Your task to perform on an android device: Search for seafood restaurants on Google Maps Image 0: 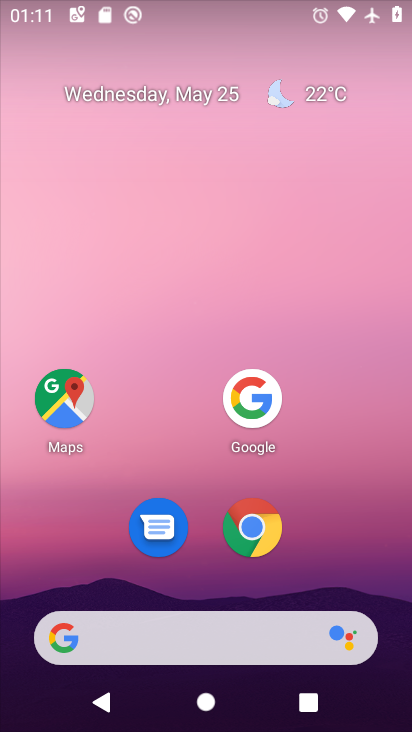
Step 0: press home button
Your task to perform on an android device: Search for seafood restaurants on Google Maps Image 1: 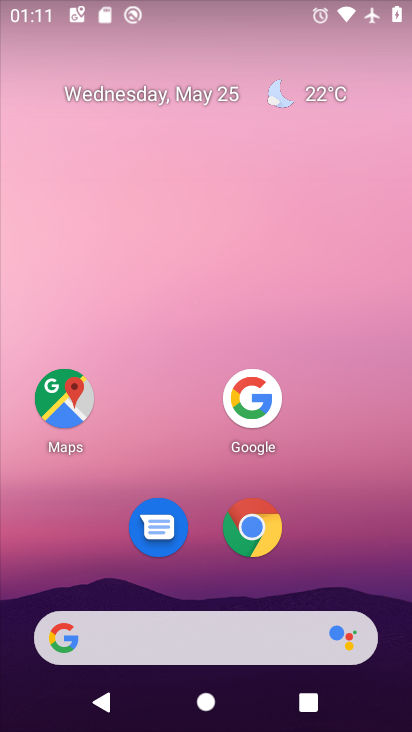
Step 1: click (63, 407)
Your task to perform on an android device: Search for seafood restaurants on Google Maps Image 2: 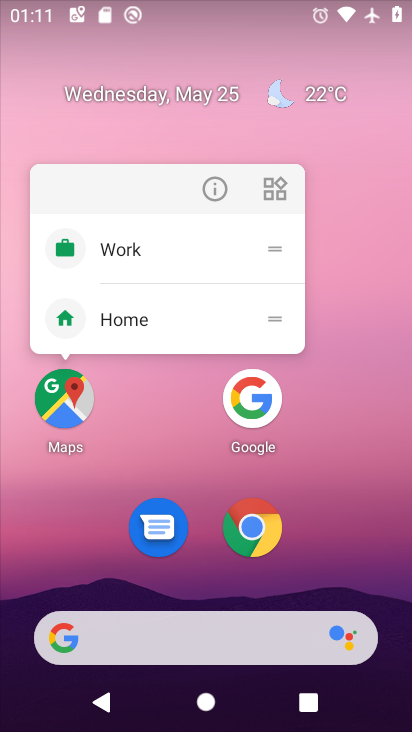
Step 2: click (63, 408)
Your task to perform on an android device: Search for seafood restaurants on Google Maps Image 3: 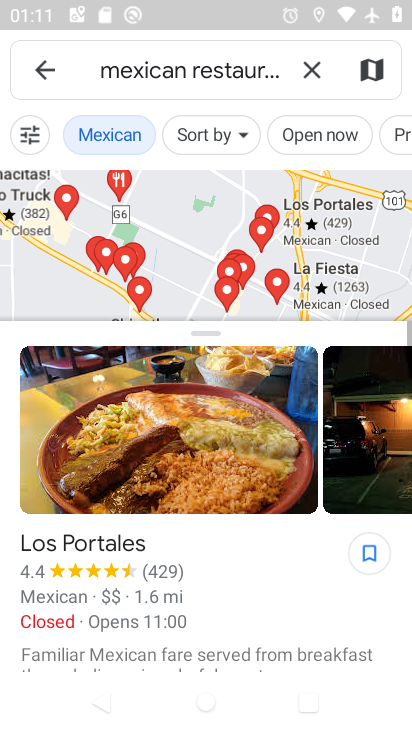
Step 3: click (313, 66)
Your task to perform on an android device: Search for seafood restaurants on Google Maps Image 4: 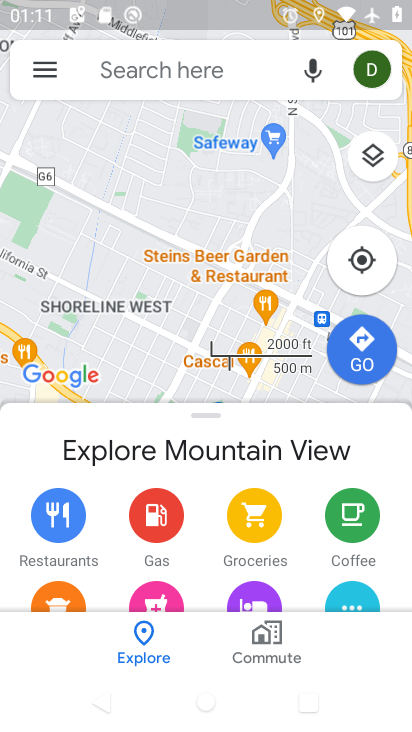
Step 4: click (209, 67)
Your task to perform on an android device: Search for seafood restaurants on Google Maps Image 5: 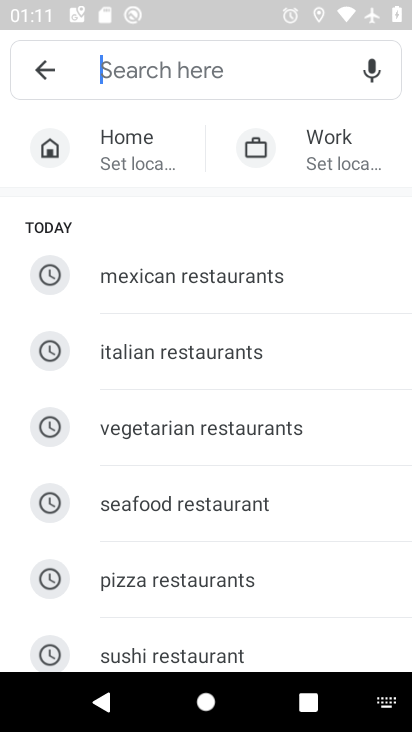
Step 5: click (143, 502)
Your task to perform on an android device: Search for seafood restaurants on Google Maps Image 6: 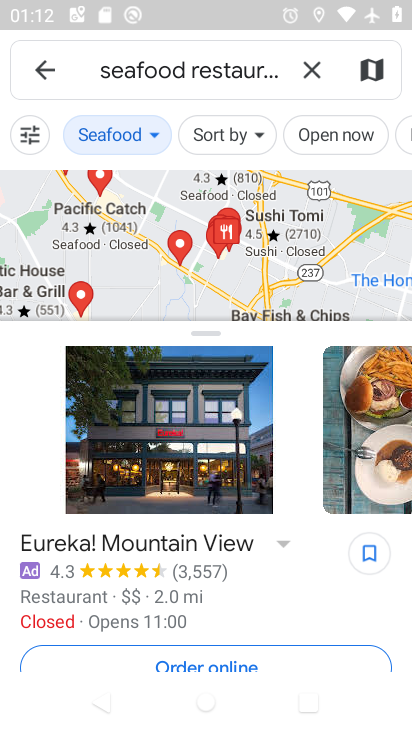
Step 6: task complete